Your task to perform on an android device: turn pop-ups on in chrome Image 0: 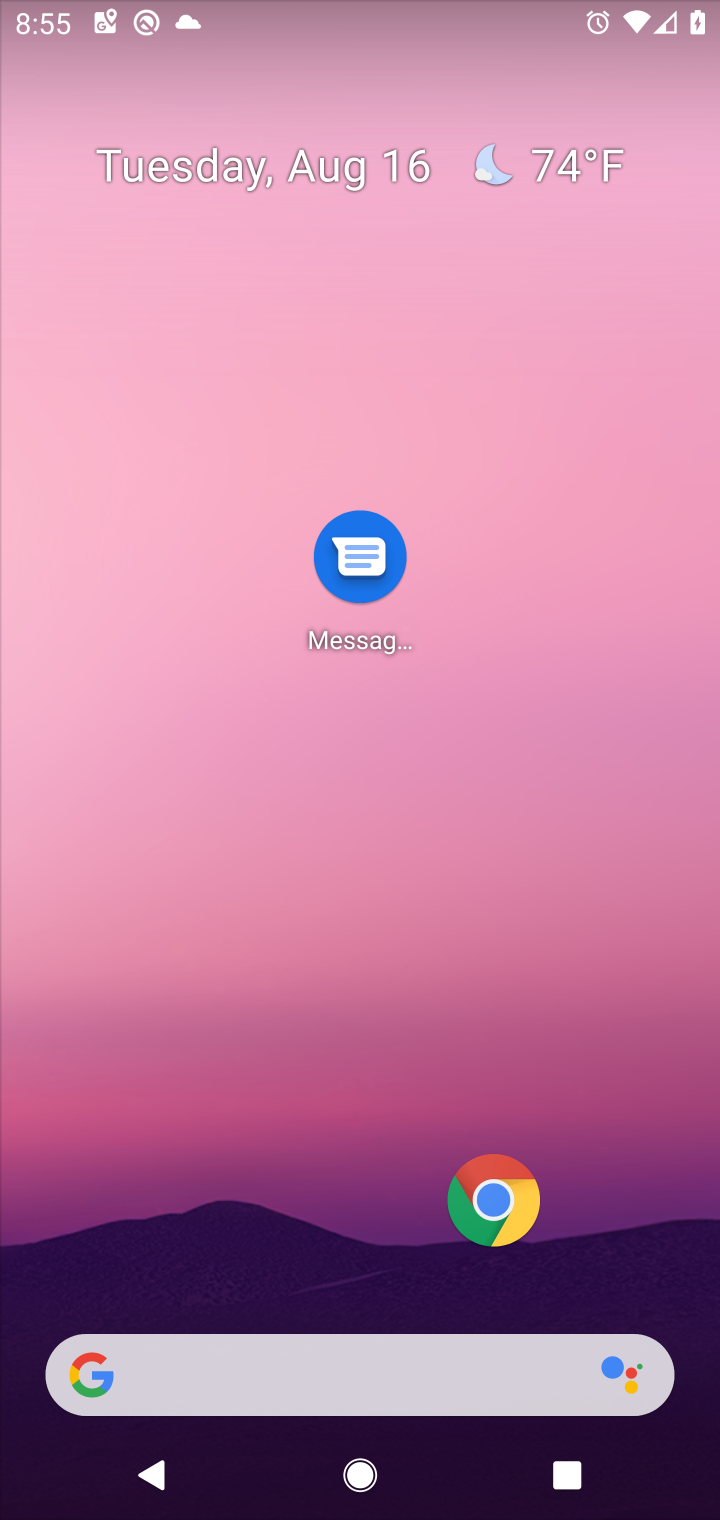
Step 0: click (488, 1229)
Your task to perform on an android device: turn pop-ups on in chrome Image 1: 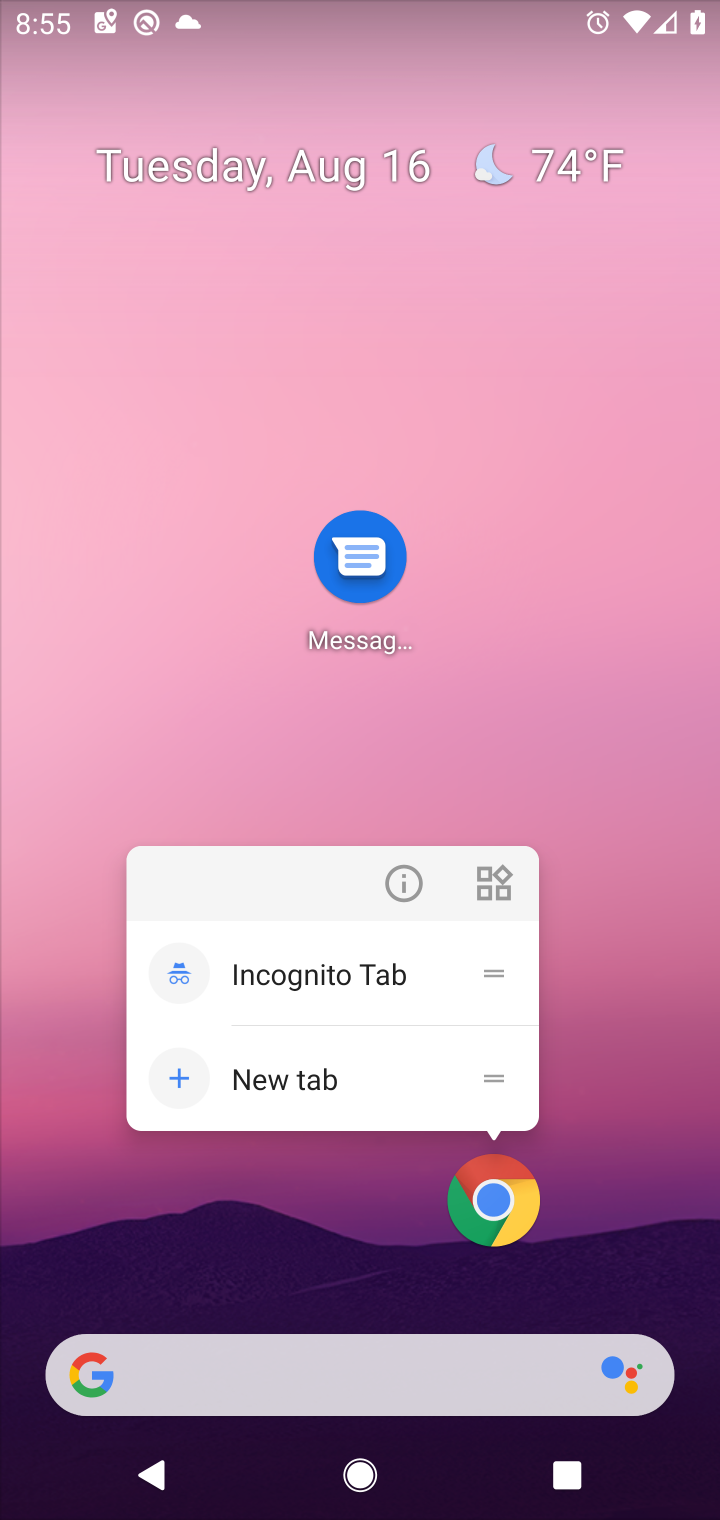
Step 1: click (514, 1210)
Your task to perform on an android device: turn pop-ups on in chrome Image 2: 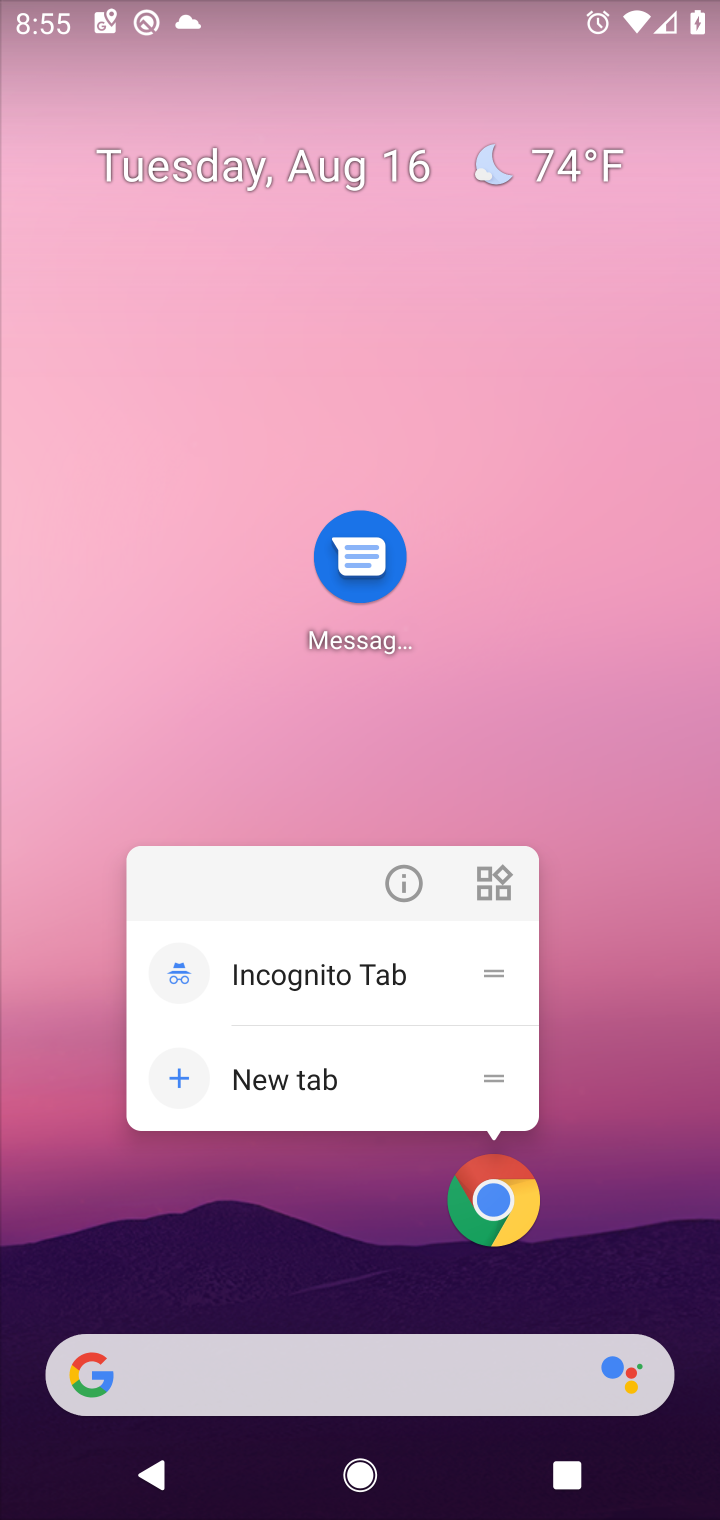
Step 2: click (475, 1189)
Your task to perform on an android device: turn pop-ups on in chrome Image 3: 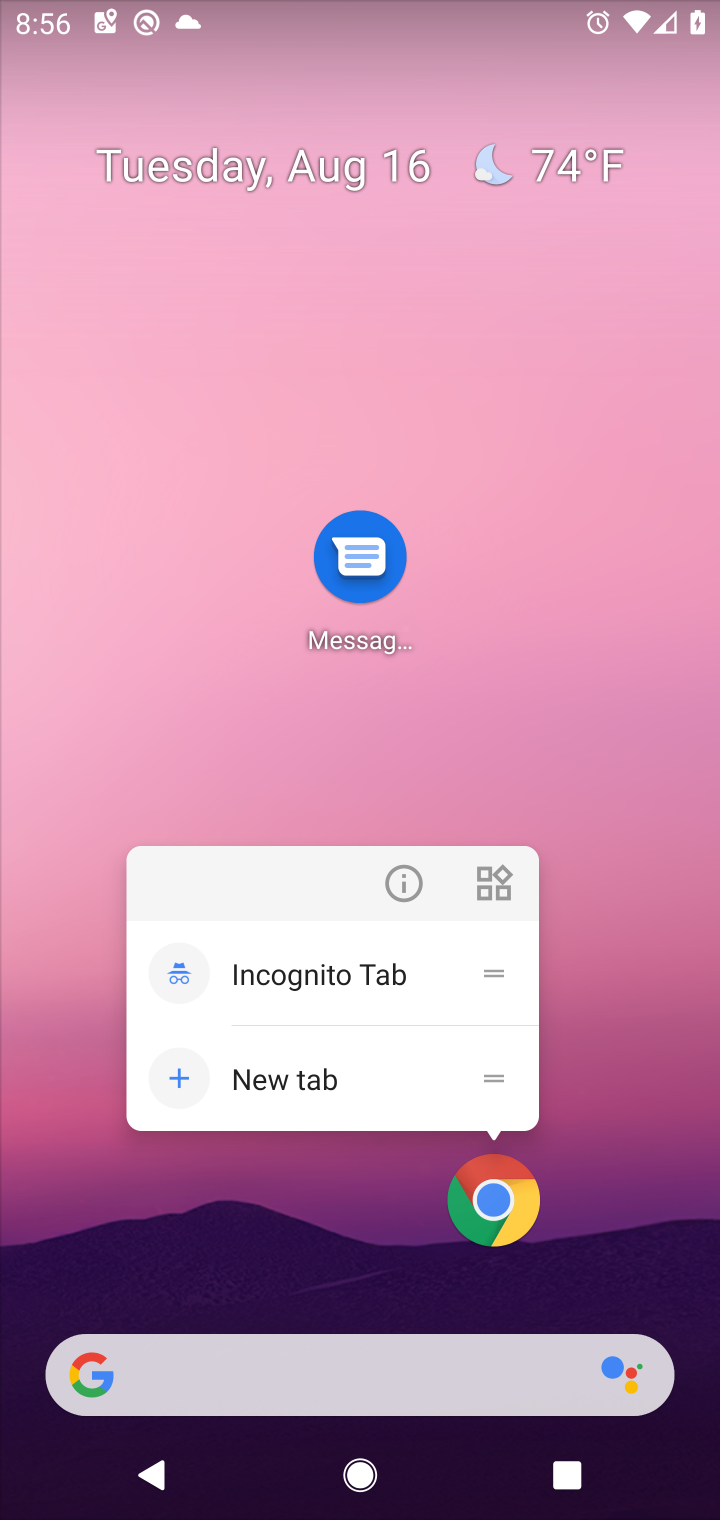
Step 3: click (481, 1214)
Your task to perform on an android device: turn pop-ups on in chrome Image 4: 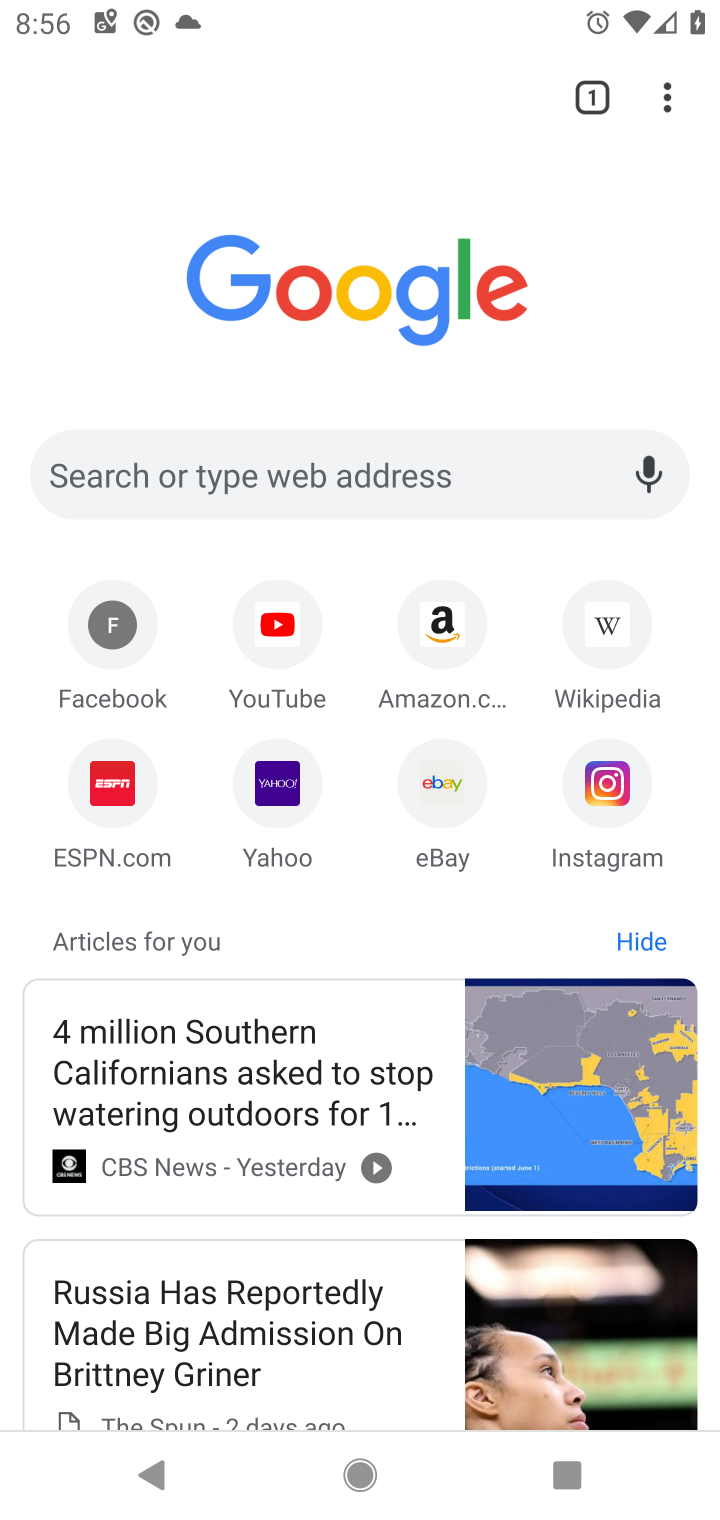
Step 4: click (676, 90)
Your task to perform on an android device: turn pop-ups on in chrome Image 5: 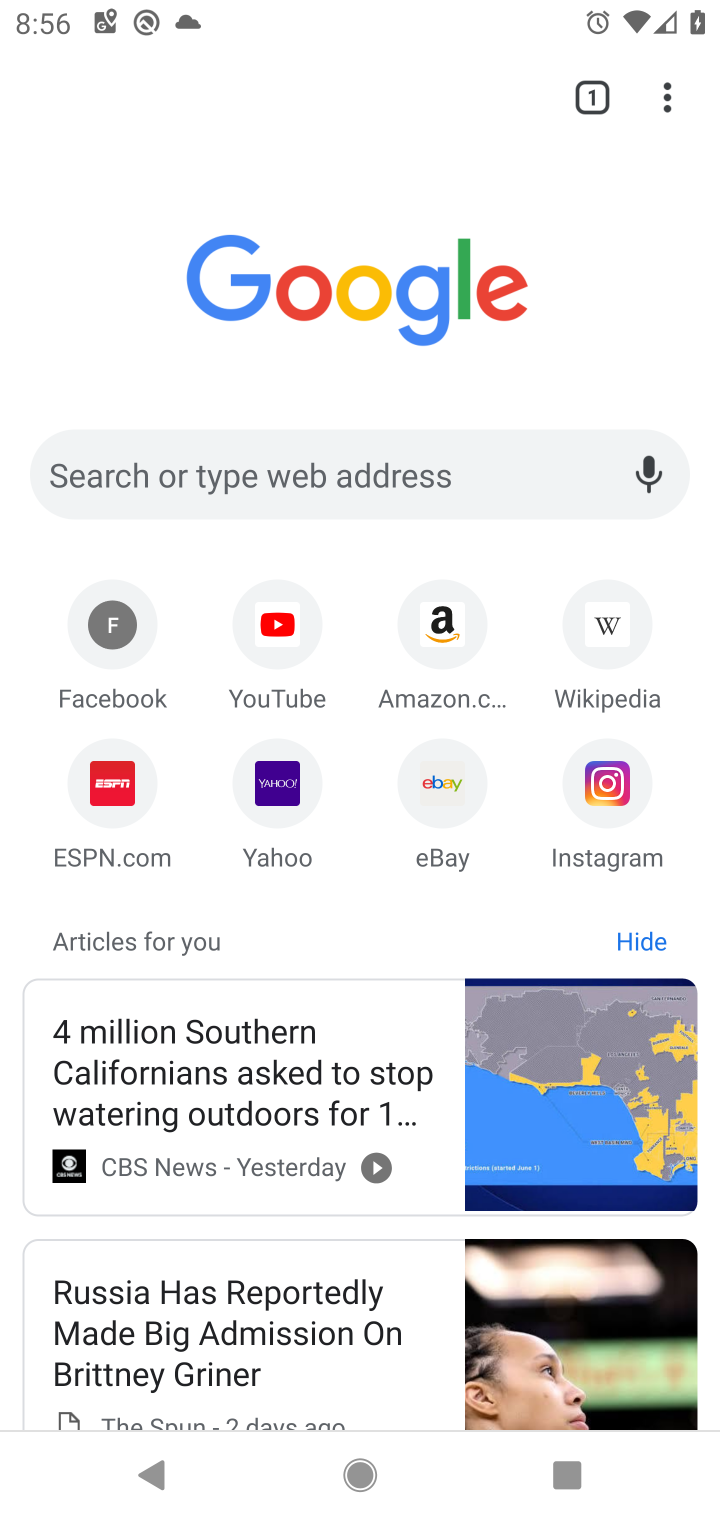
Step 5: click (660, 96)
Your task to perform on an android device: turn pop-ups on in chrome Image 6: 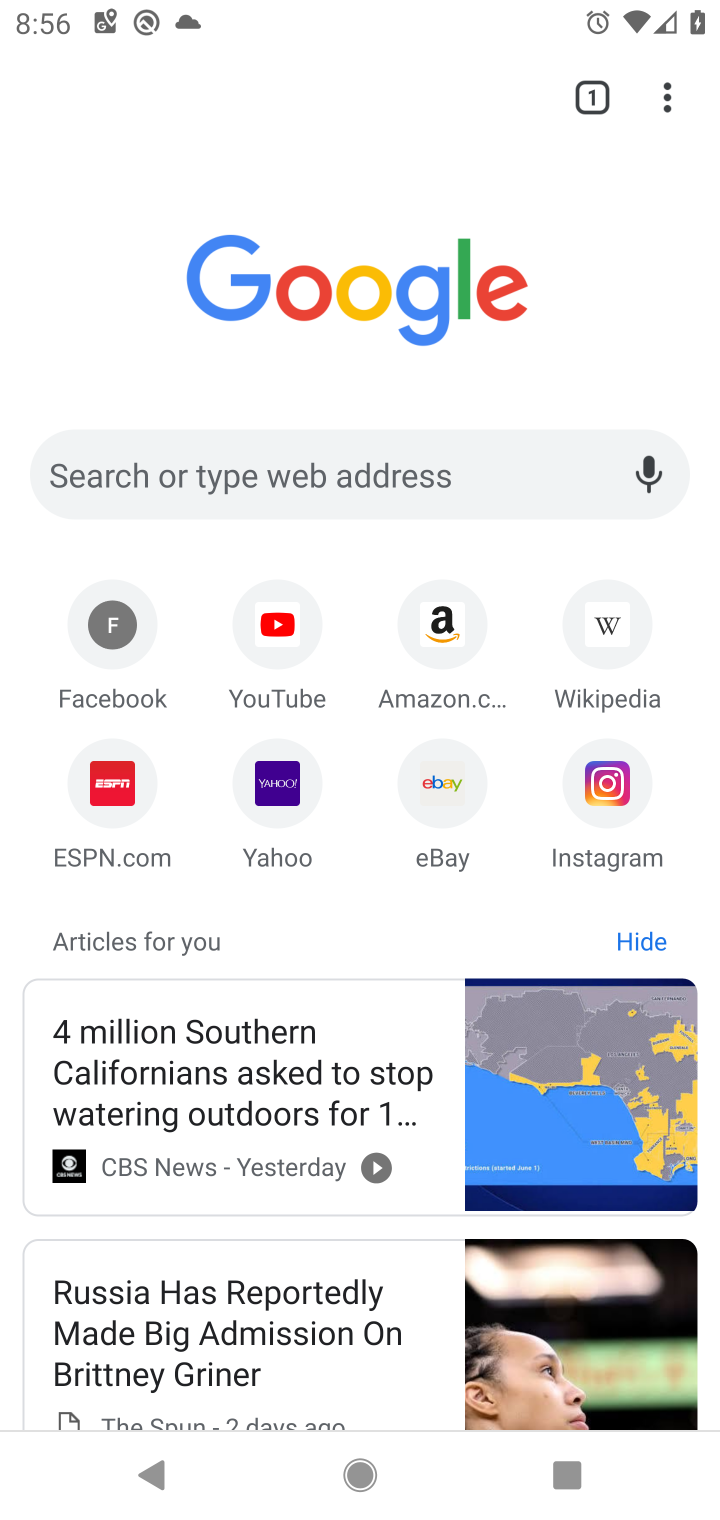
Step 6: click (680, 93)
Your task to perform on an android device: turn pop-ups on in chrome Image 7: 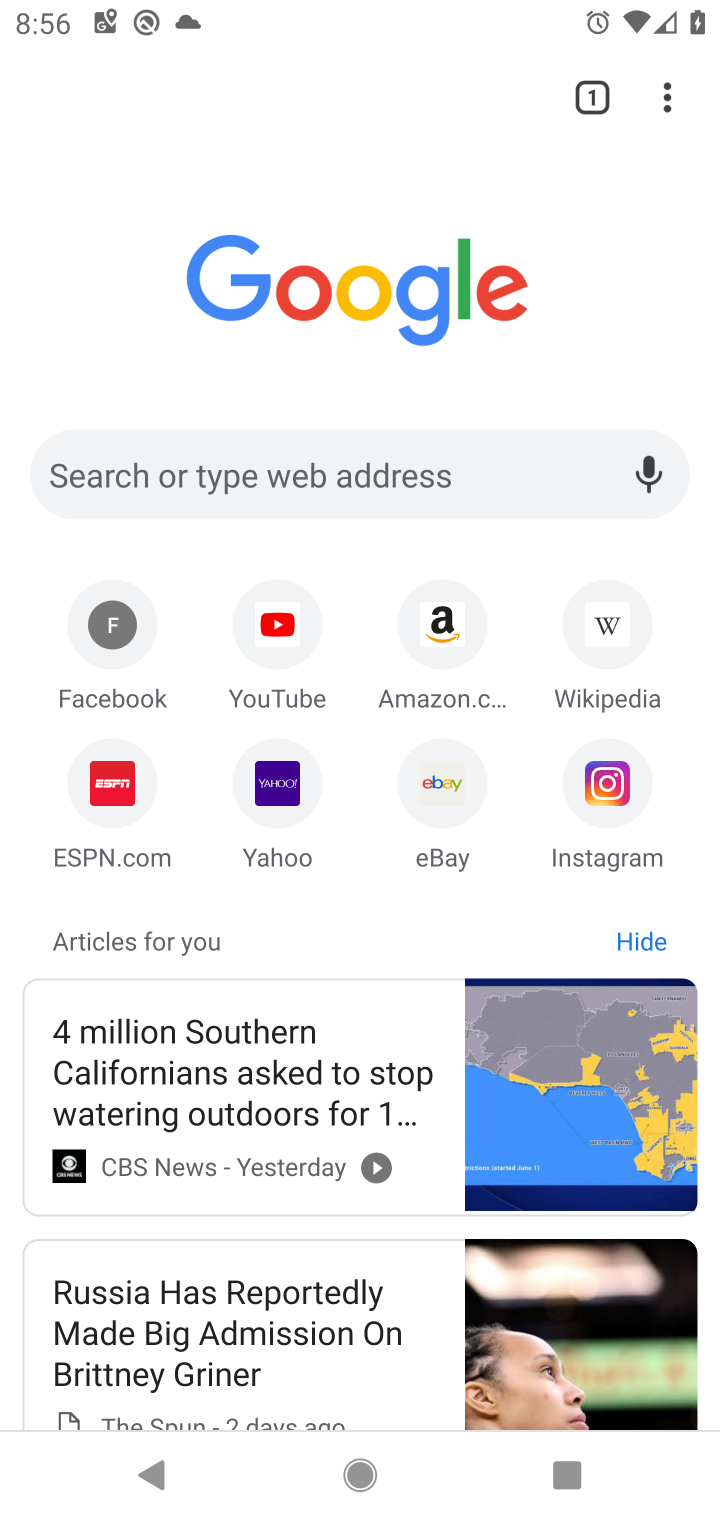
Step 7: click (674, 97)
Your task to perform on an android device: turn pop-ups on in chrome Image 8: 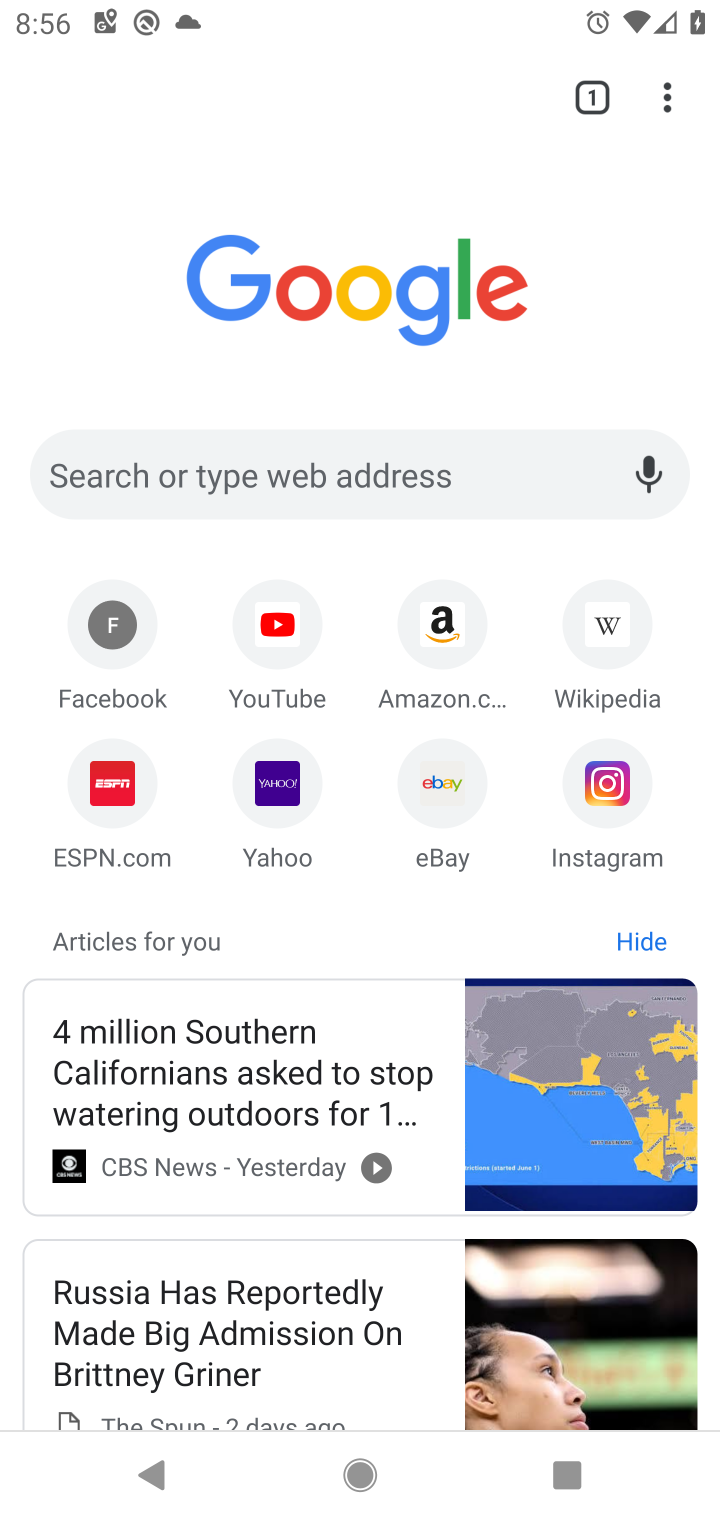
Step 8: click (674, 97)
Your task to perform on an android device: turn pop-ups on in chrome Image 9: 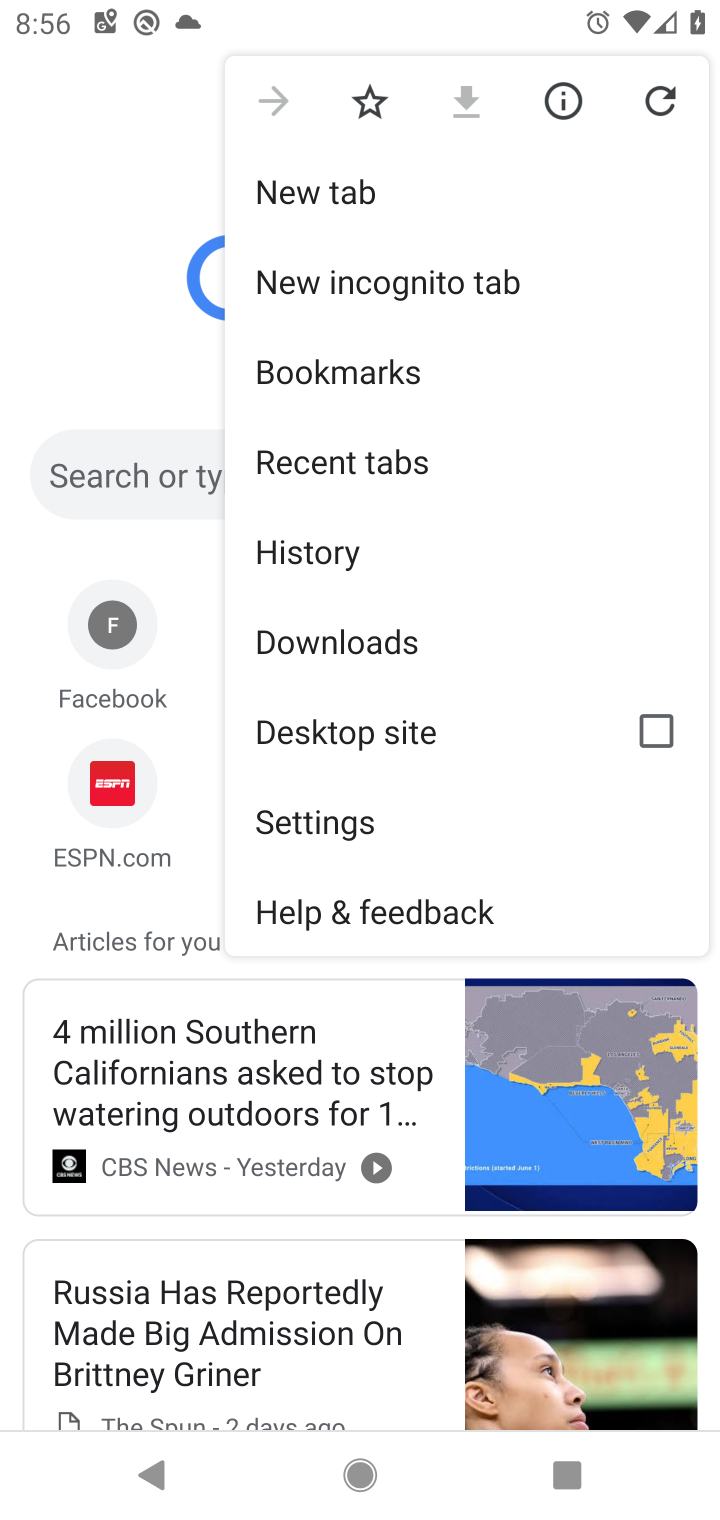
Step 9: click (310, 815)
Your task to perform on an android device: turn pop-ups on in chrome Image 10: 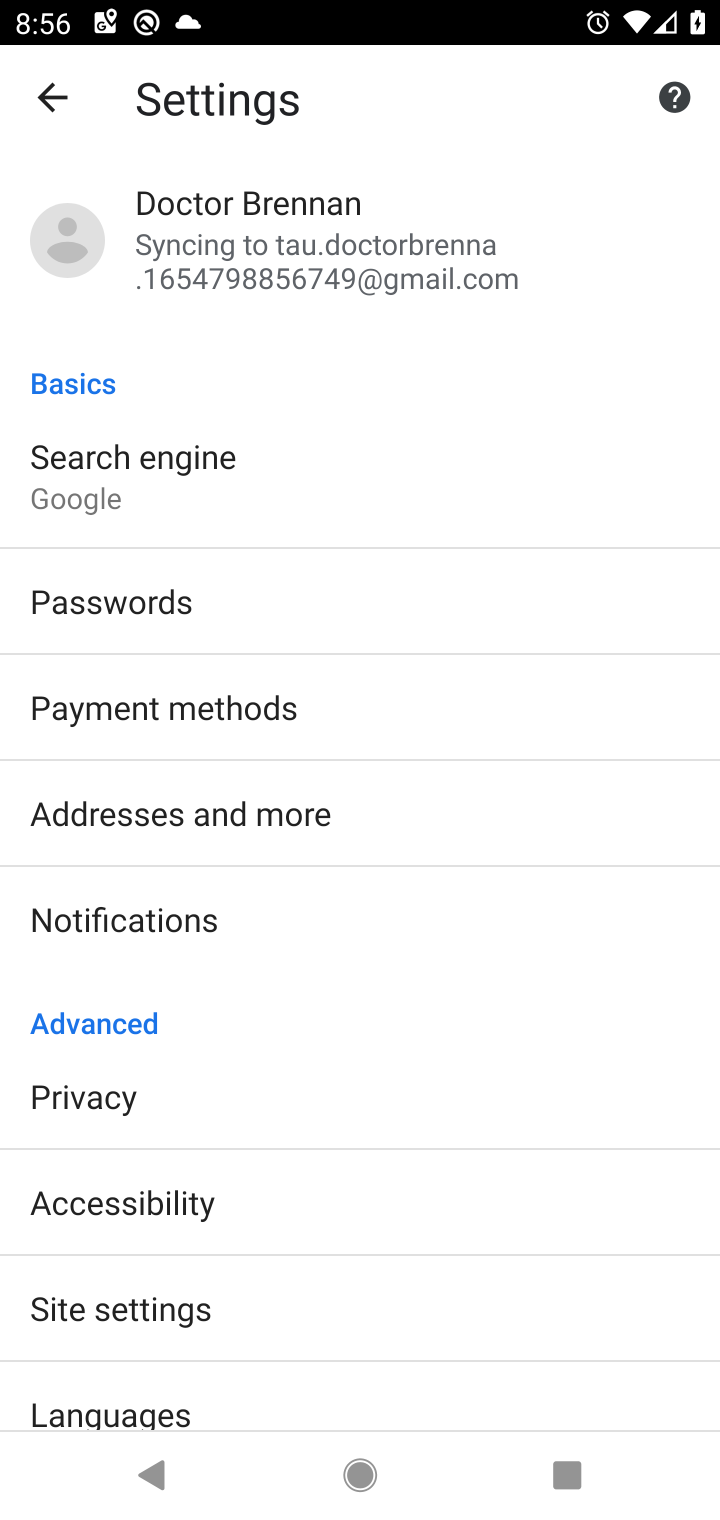
Step 10: click (172, 1302)
Your task to perform on an android device: turn pop-ups on in chrome Image 11: 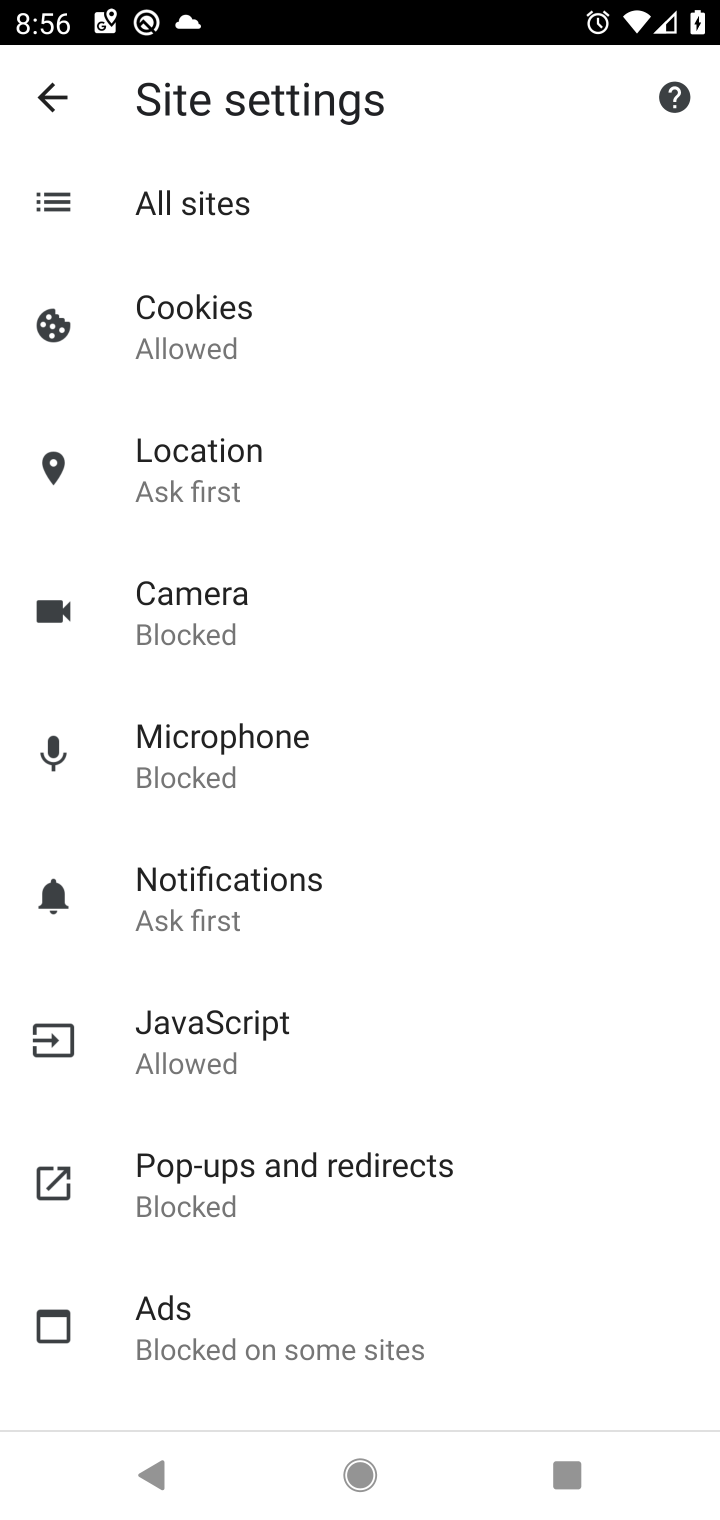
Step 11: click (291, 1171)
Your task to perform on an android device: turn pop-ups on in chrome Image 12: 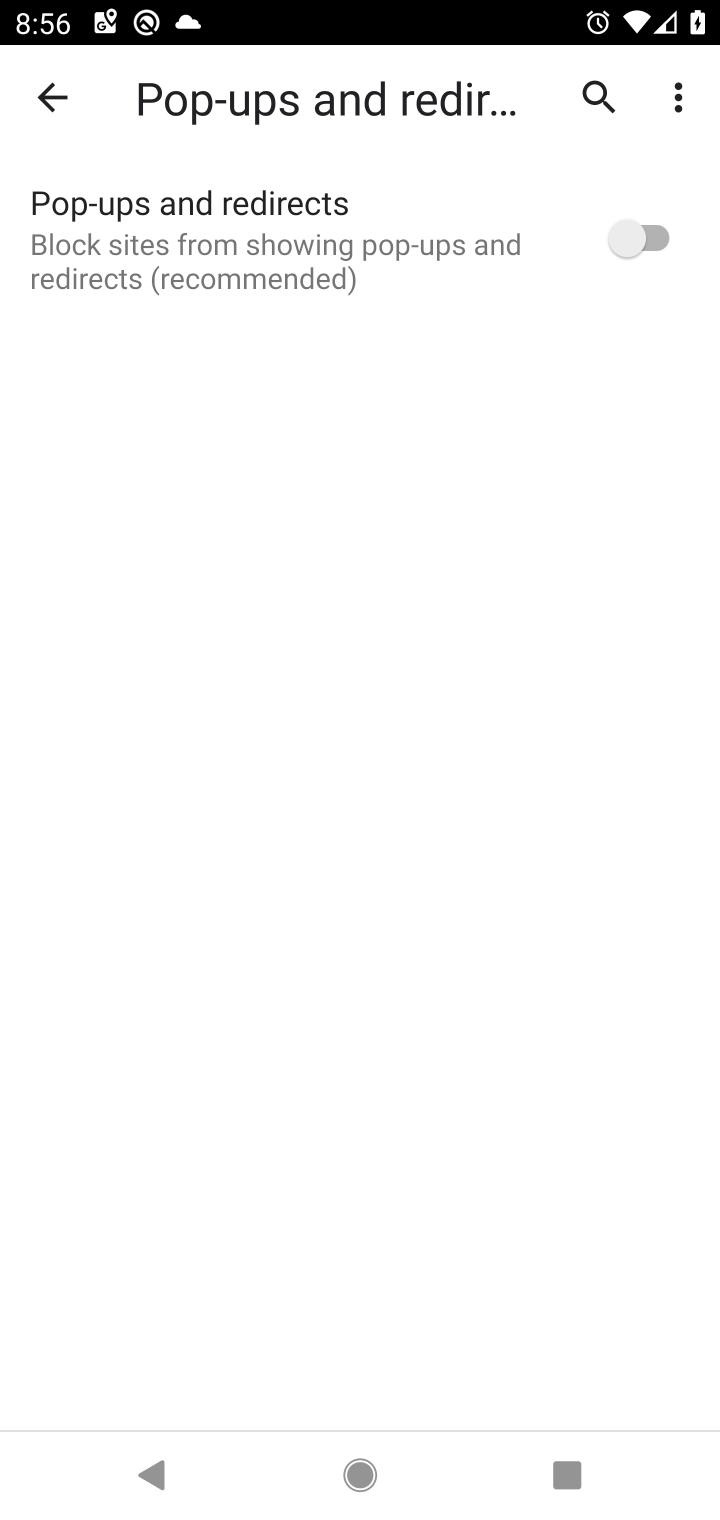
Step 12: click (623, 230)
Your task to perform on an android device: turn pop-ups on in chrome Image 13: 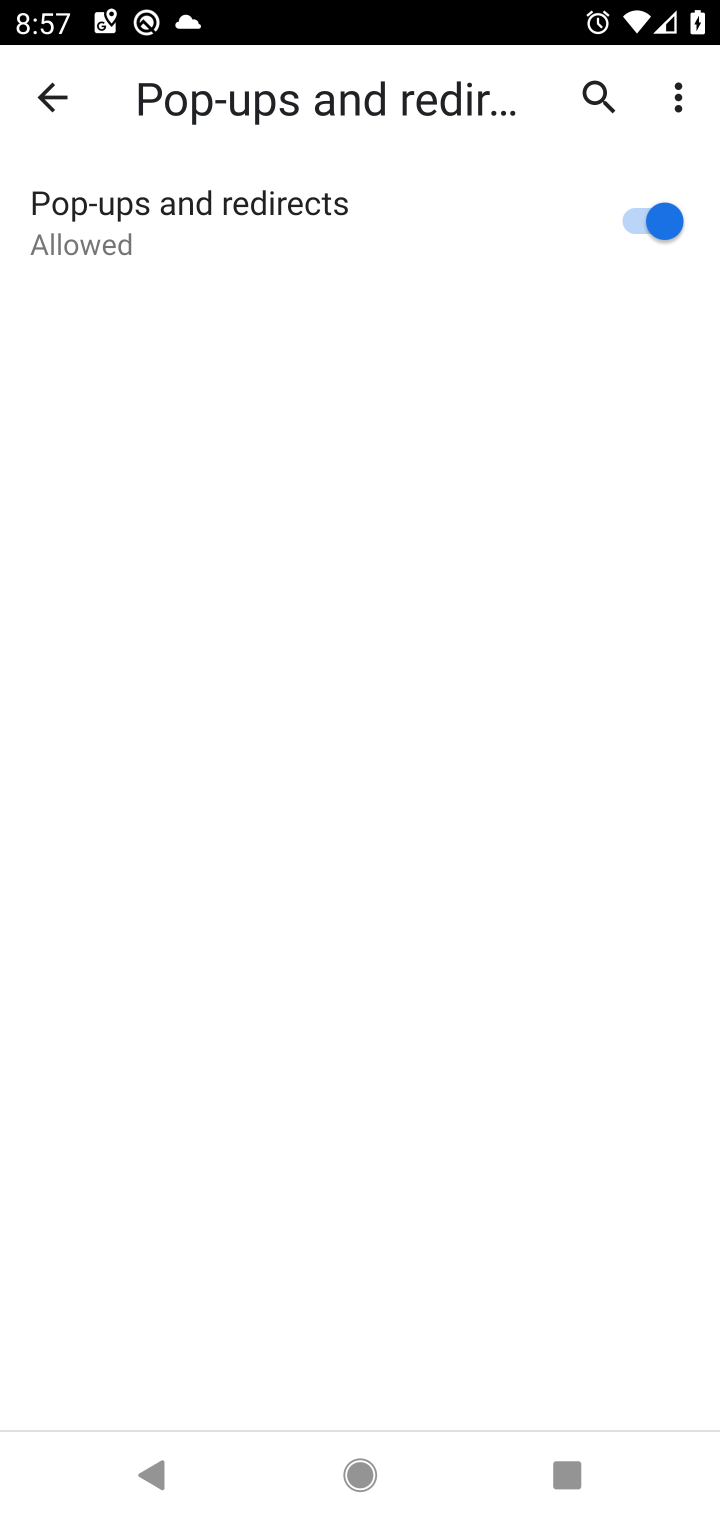
Step 13: task complete